Your task to perform on an android device: Search for macbook pro 13 inch on ebay.com, select the first entry, add it to the cart, then select checkout. Image 0: 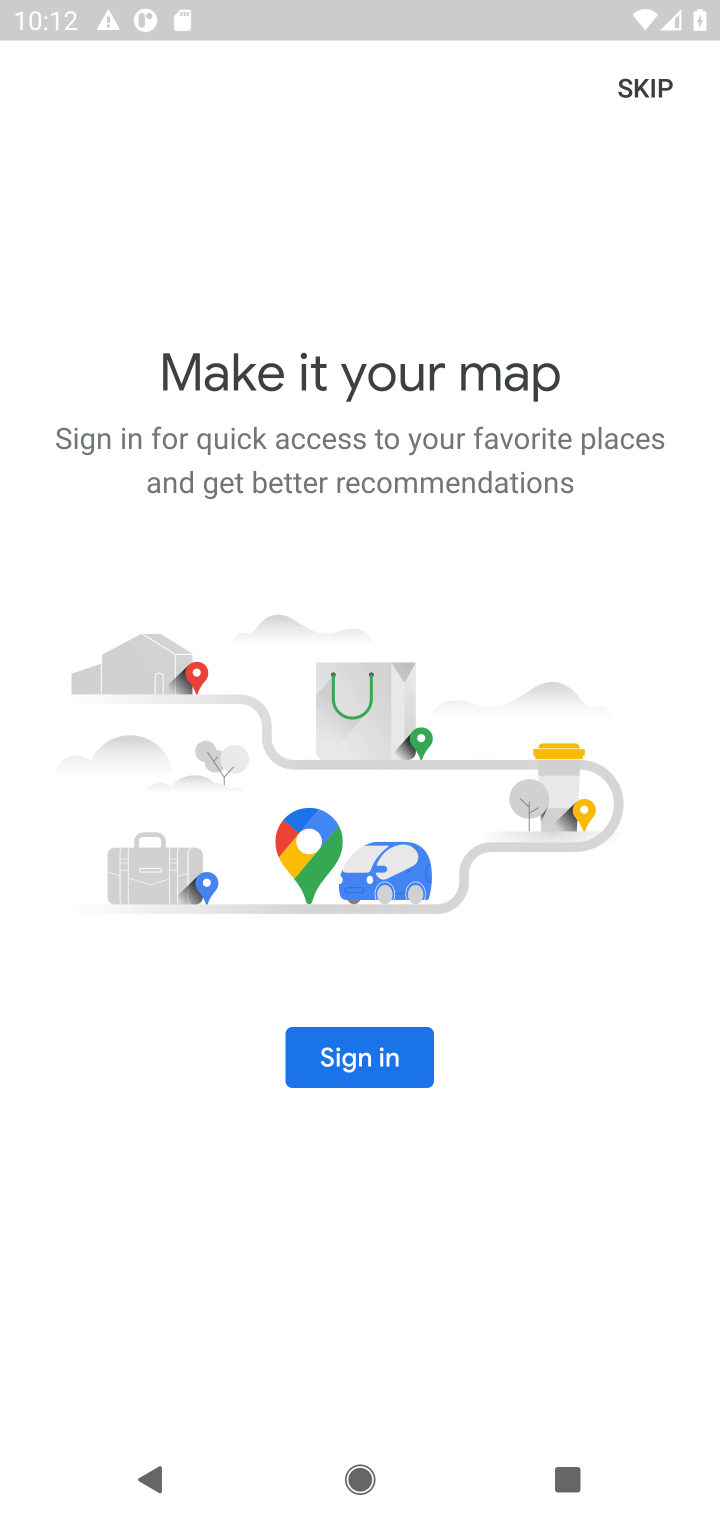
Step 0: press home button
Your task to perform on an android device: Search for macbook pro 13 inch on ebay.com, select the first entry, add it to the cart, then select checkout. Image 1: 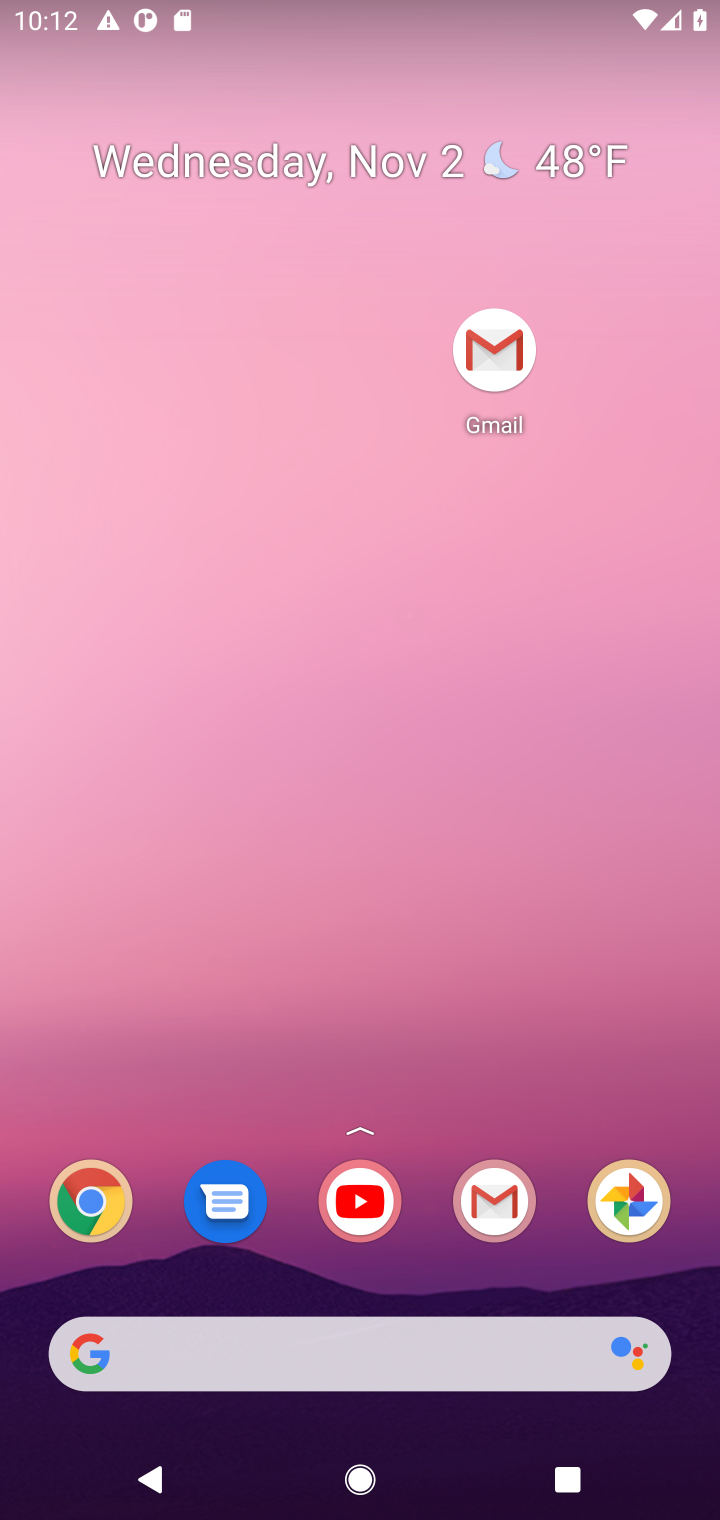
Step 1: drag from (448, 1130) to (398, 372)
Your task to perform on an android device: Search for macbook pro 13 inch on ebay.com, select the first entry, add it to the cart, then select checkout. Image 2: 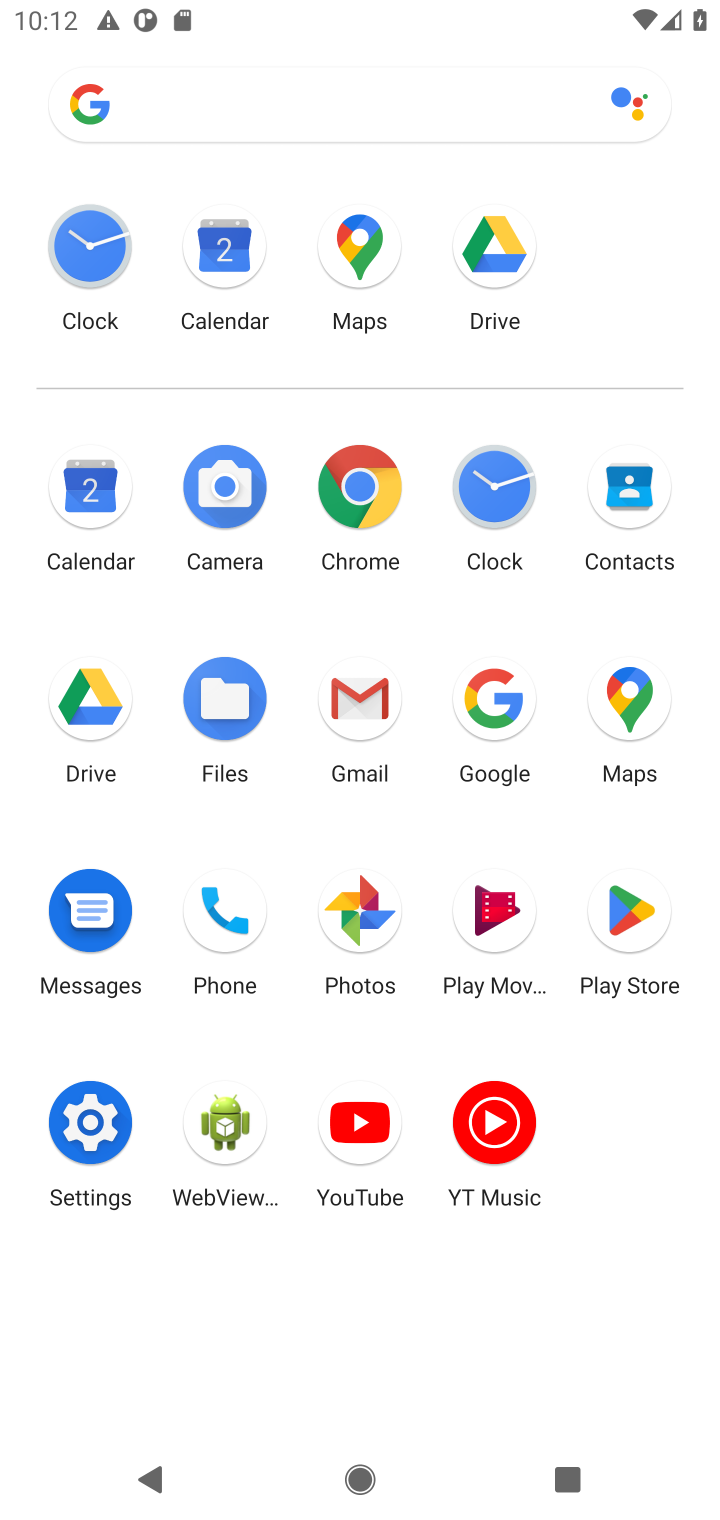
Step 2: click (353, 487)
Your task to perform on an android device: Search for macbook pro 13 inch on ebay.com, select the first entry, add it to the cart, then select checkout. Image 3: 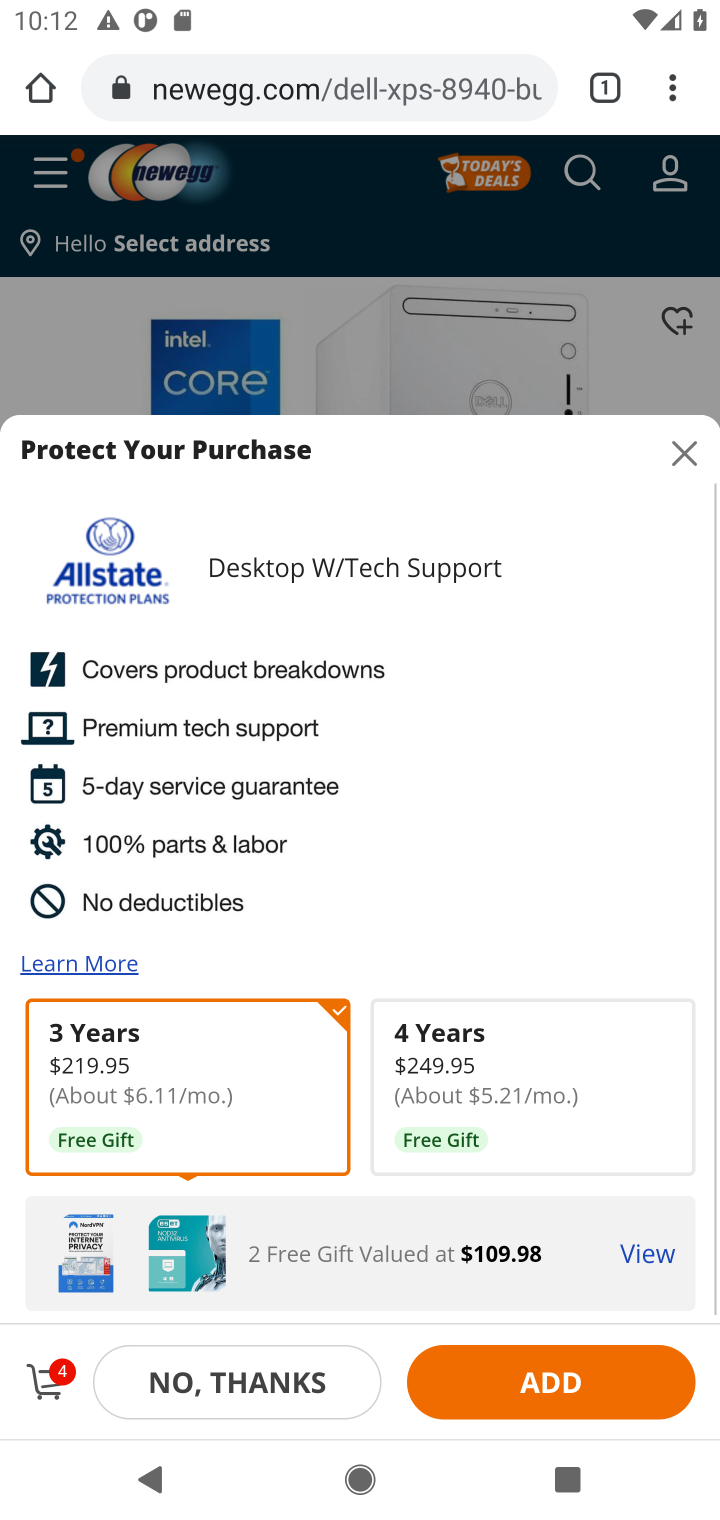
Step 3: click (324, 109)
Your task to perform on an android device: Search for macbook pro 13 inch on ebay.com, select the first entry, add it to the cart, then select checkout. Image 4: 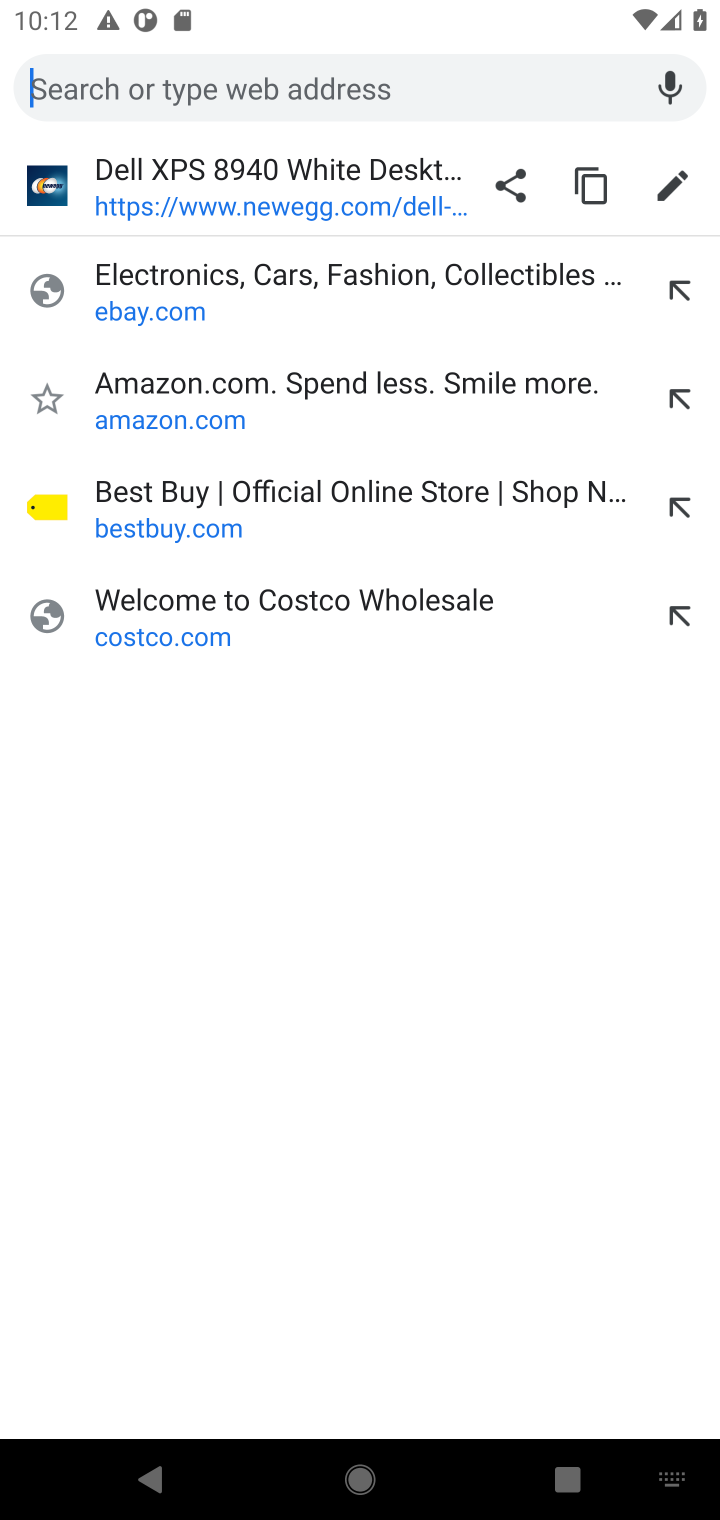
Step 4: type "ebay.com"
Your task to perform on an android device: Search for macbook pro 13 inch on ebay.com, select the first entry, add it to the cart, then select checkout. Image 5: 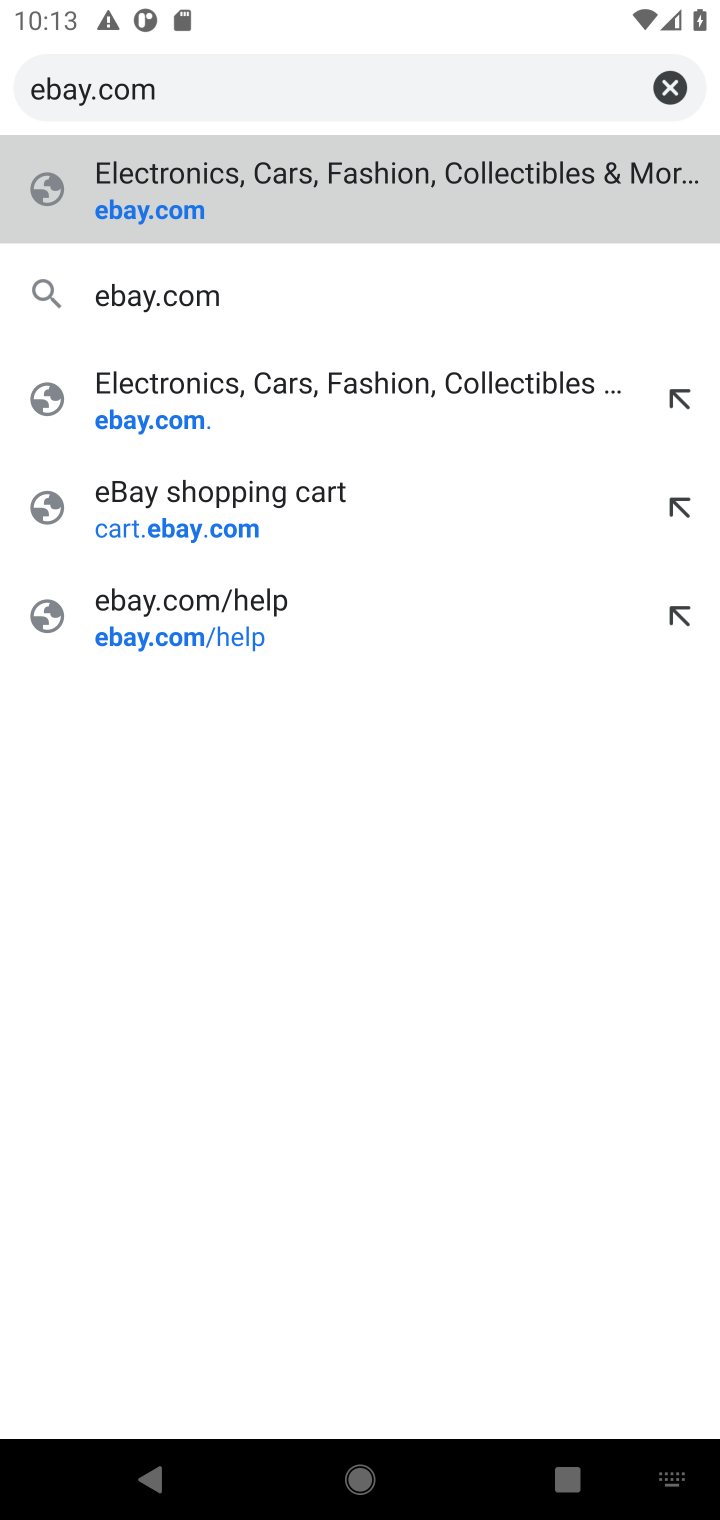
Step 5: press enter
Your task to perform on an android device: Search for macbook pro 13 inch on ebay.com, select the first entry, add it to the cart, then select checkout. Image 6: 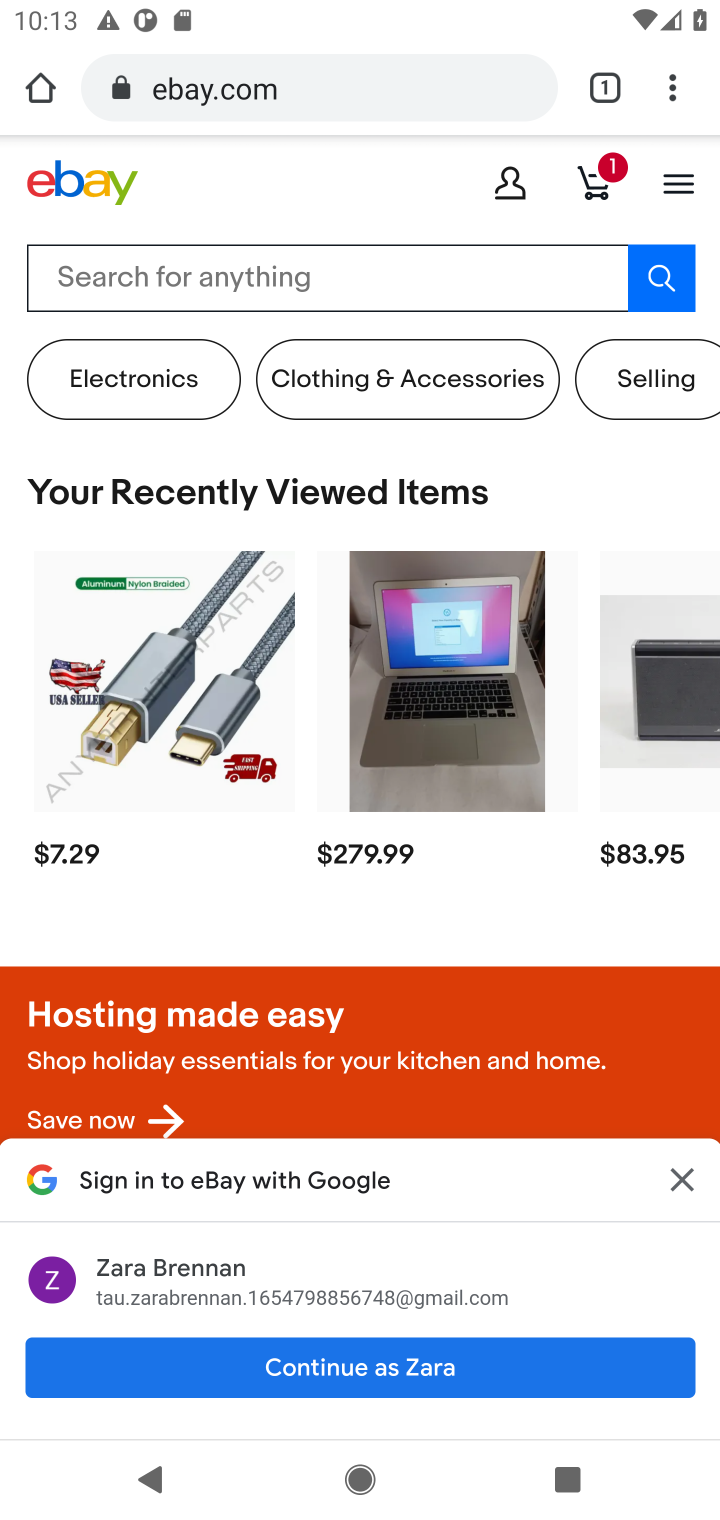
Step 6: click (348, 286)
Your task to perform on an android device: Search for macbook pro 13 inch on ebay.com, select the first entry, add it to the cart, then select checkout. Image 7: 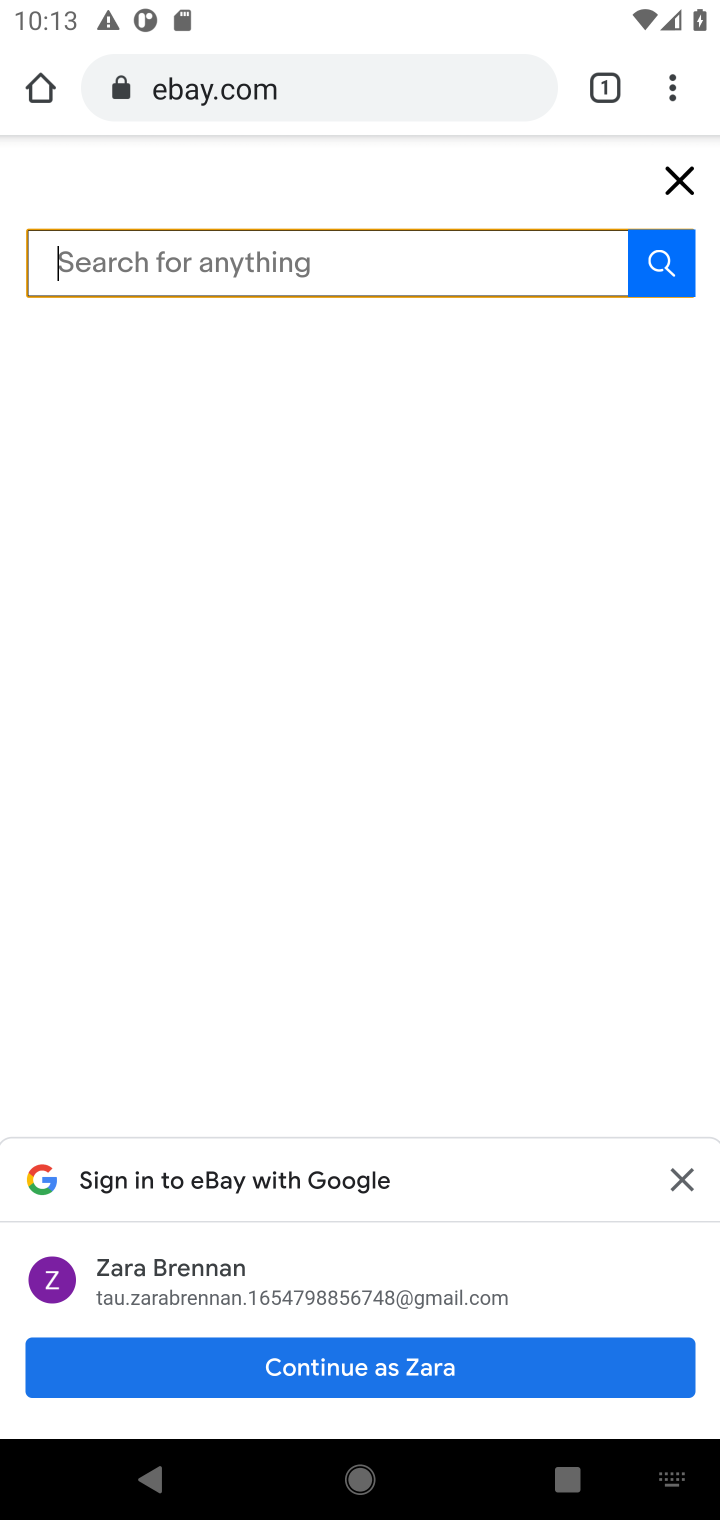
Step 7: type "macbook pro 13"
Your task to perform on an android device: Search for macbook pro 13 inch on ebay.com, select the first entry, add it to the cart, then select checkout. Image 8: 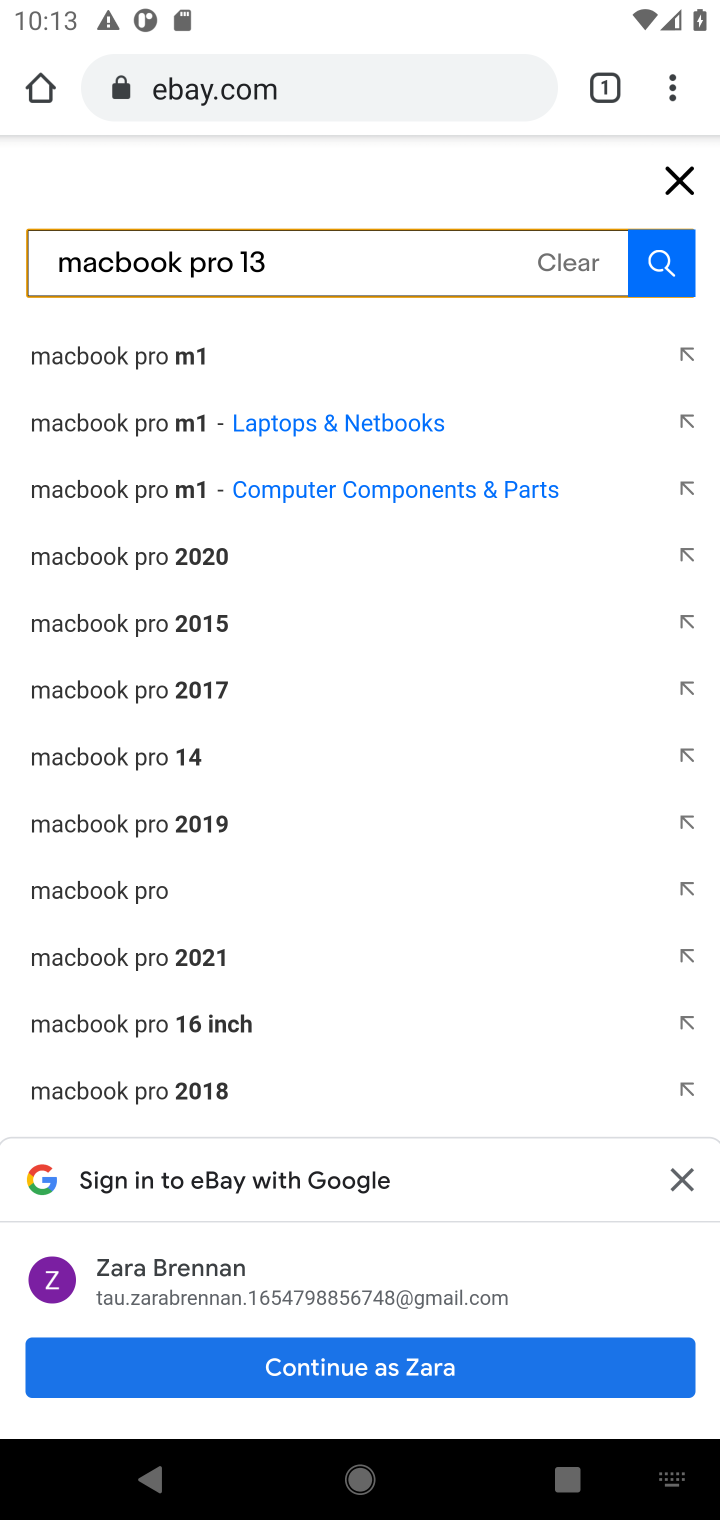
Step 8: press enter
Your task to perform on an android device: Search for macbook pro 13 inch on ebay.com, select the first entry, add it to the cart, then select checkout. Image 9: 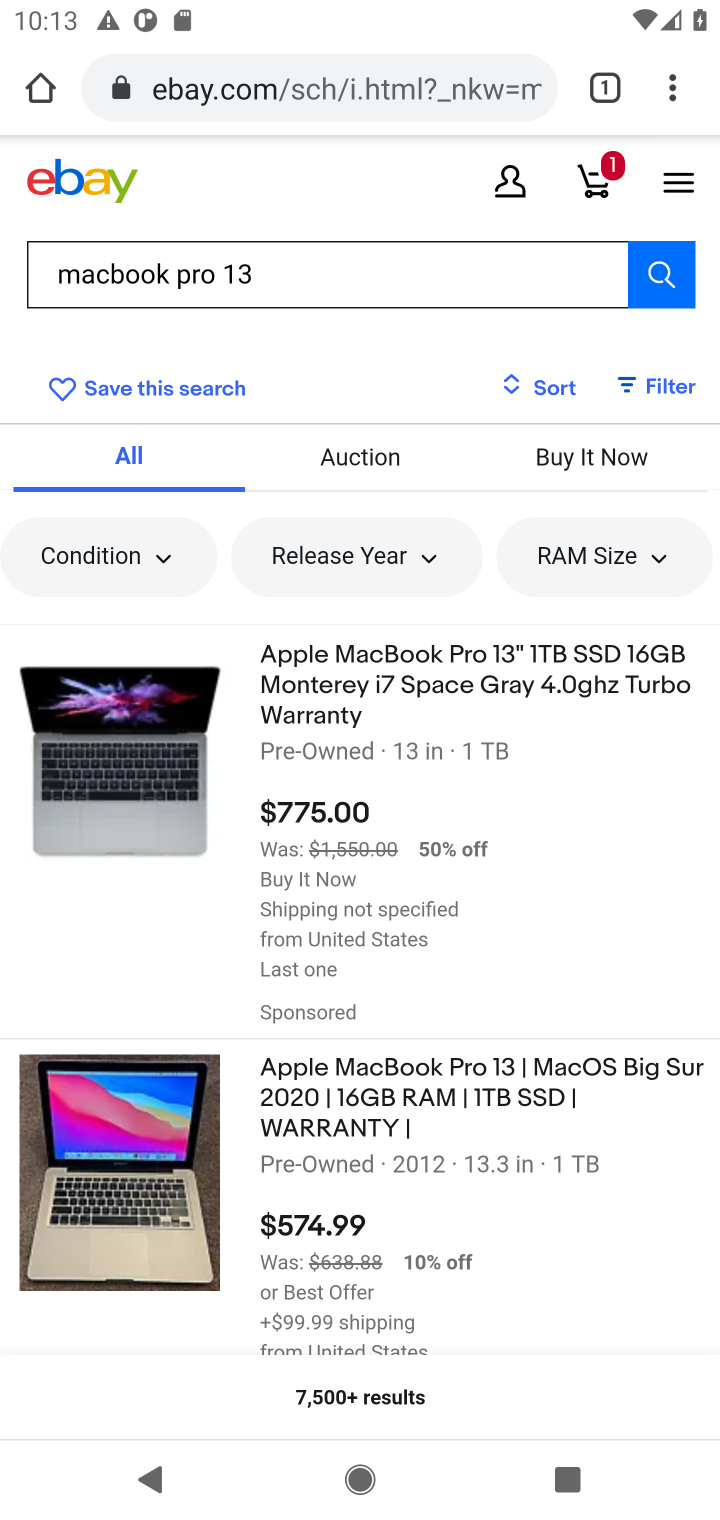
Step 9: click (353, 691)
Your task to perform on an android device: Search for macbook pro 13 inch on ebay.com, select the first entry, add it to the cart, then select checkout. Image 10: 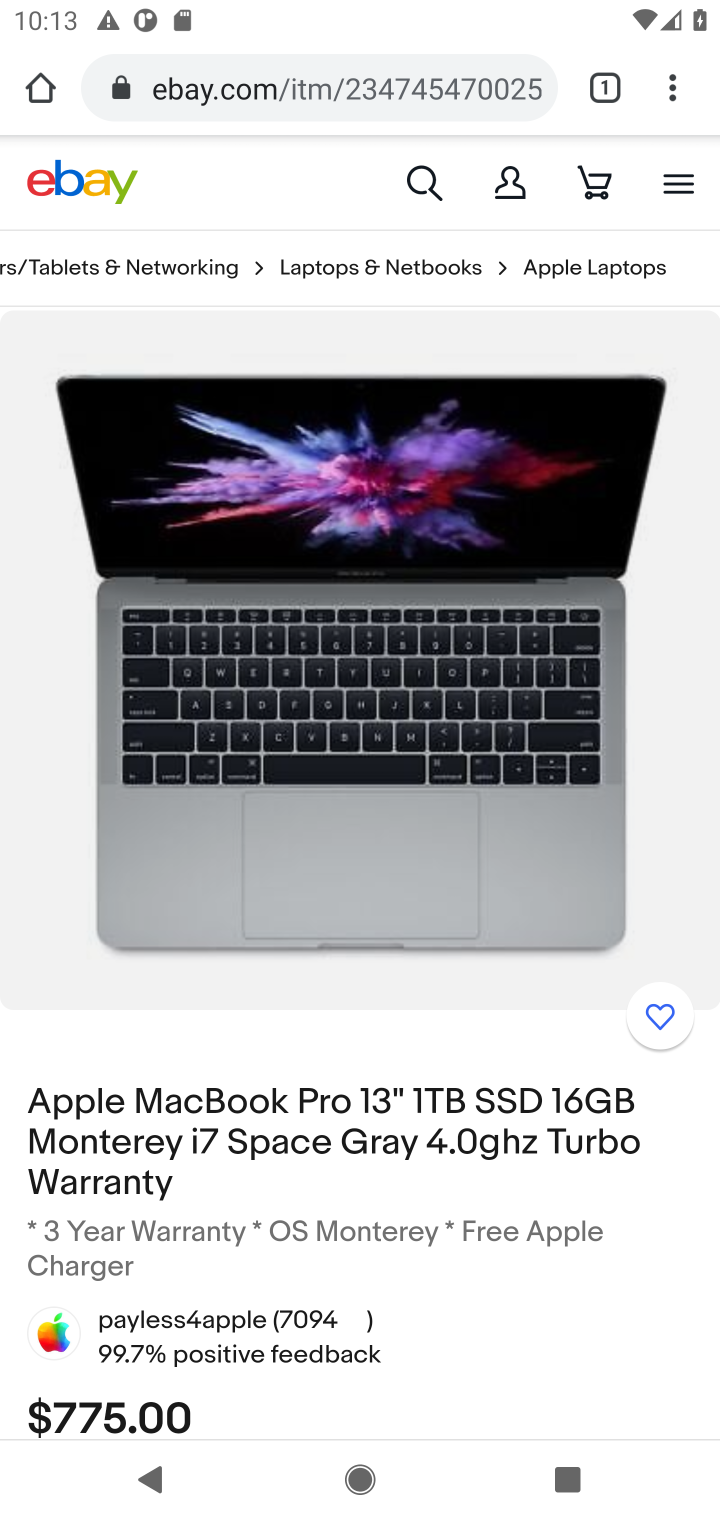
Step 10: drag from (372, 1319) to (469, 125)
Your task to perform on an android device: Search for macbook pro 13 inch on ebay.com, select the first entry, add it to the cart, then select checkout. Image 11: 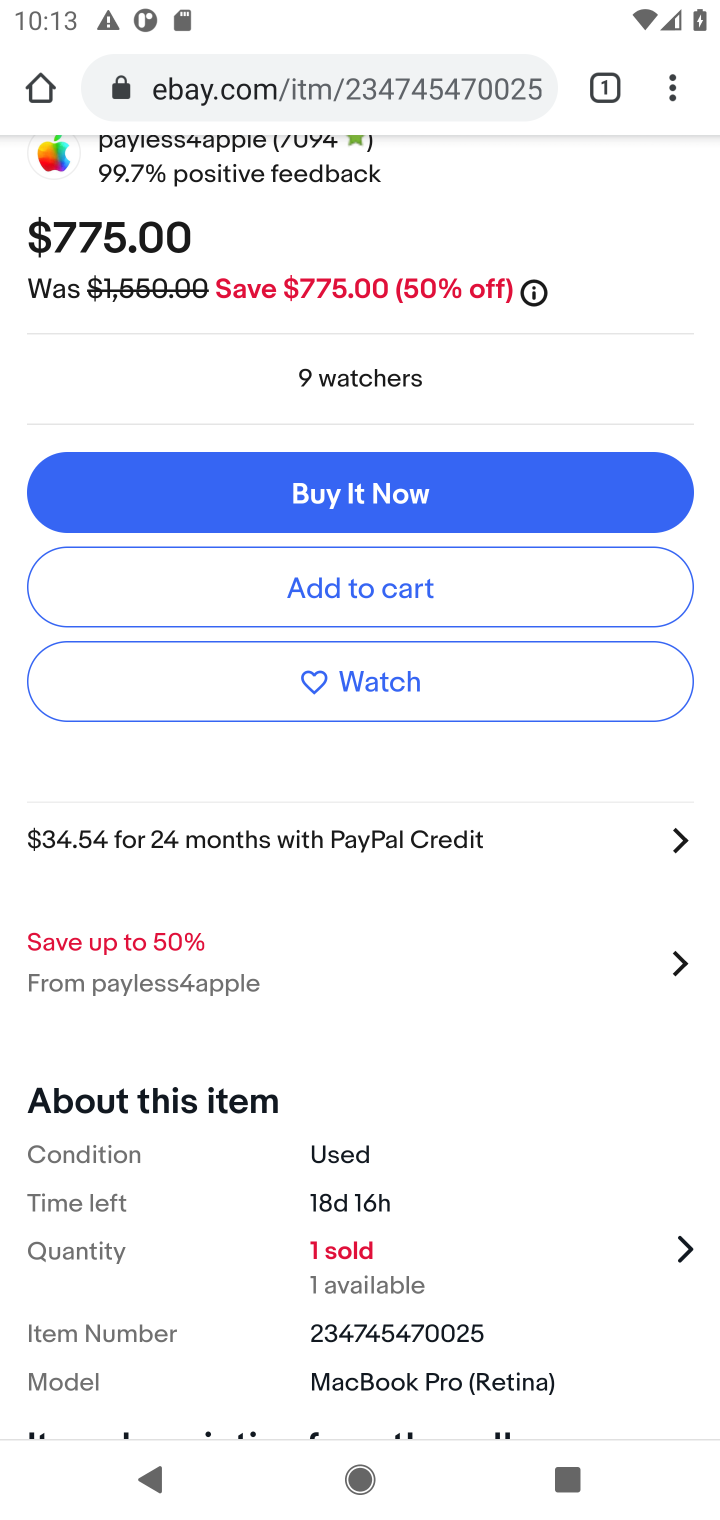
Step 11: click (356, 596)
Your task to perform on an android device: Search for macbook pro 13 inch on ebay.com, select the first entry, add it to the cart, then select checkout. Image 12: 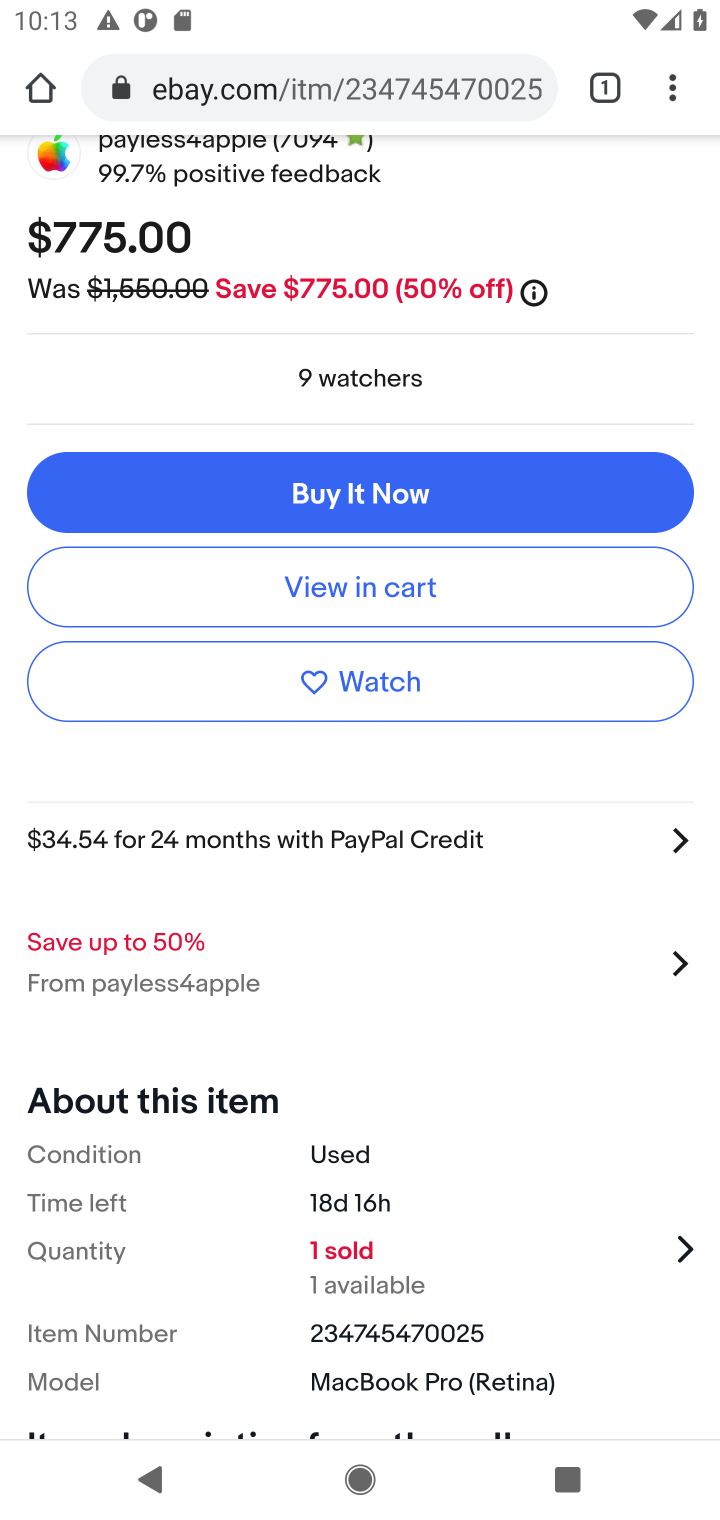
Step 12: click (356, 596)
Your task to perform on an android device: Search for macbook pro 13 inch on ebay.com, select the first entry, add it to the cart, then select checkout. Image 13: 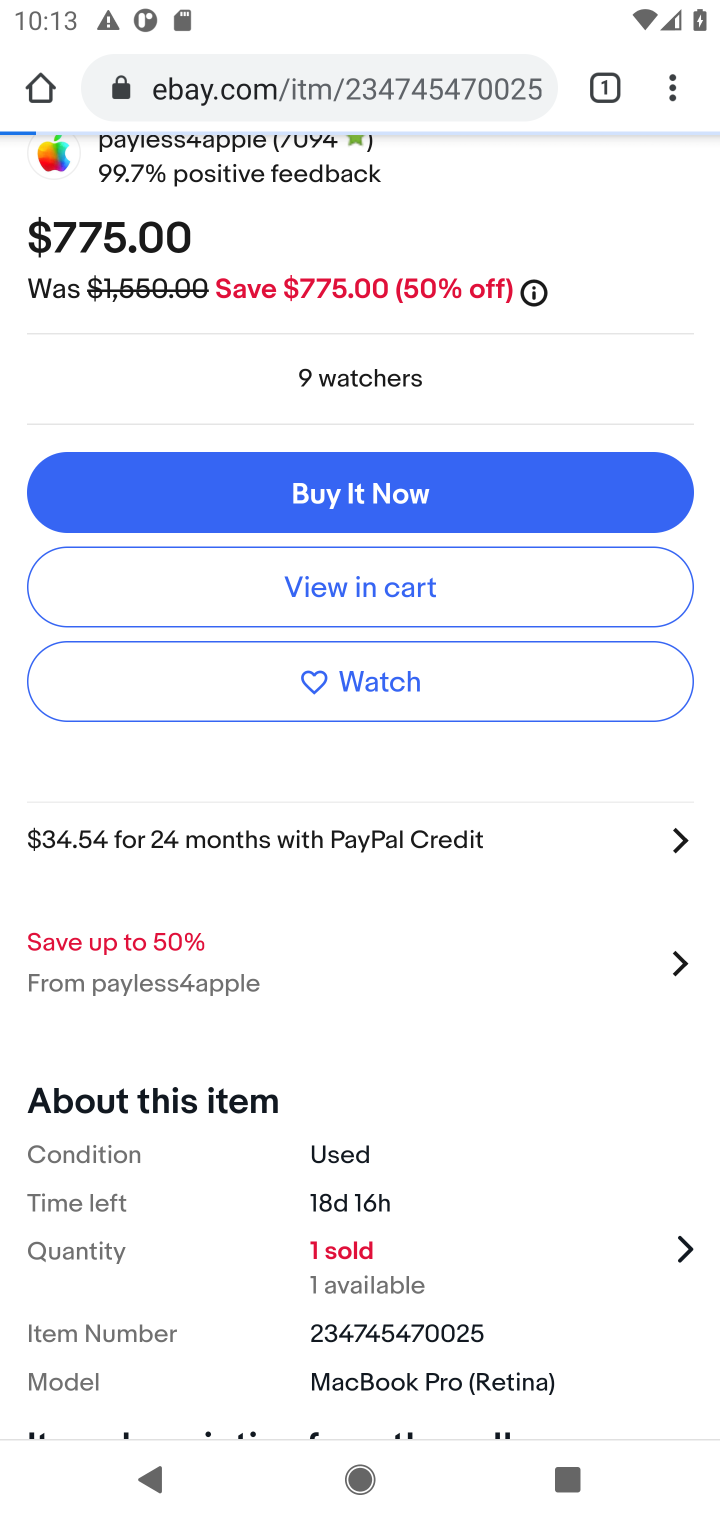
Step 13: click (356, 596)
Your task to perform on an android device: Search for macbook pro 13 inch on ebay.com, select the first entry, add it to the cart, then select checkout. Image 14: 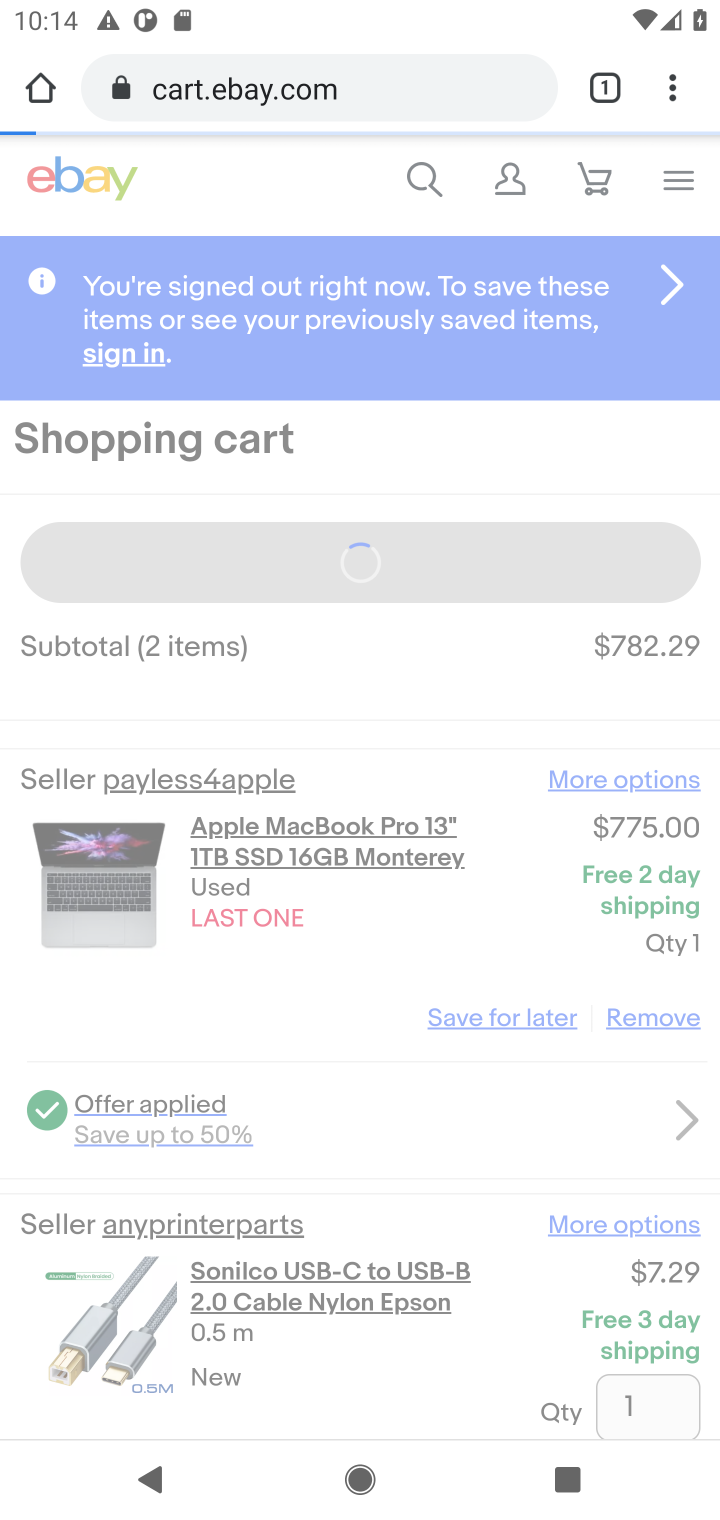
Step 14: click (378, 563)
Your task to perform on an android device: Search for macbook pro 13 inch on ebay.com, select the first entry, add it to the cart, then select checkout. Image 15: 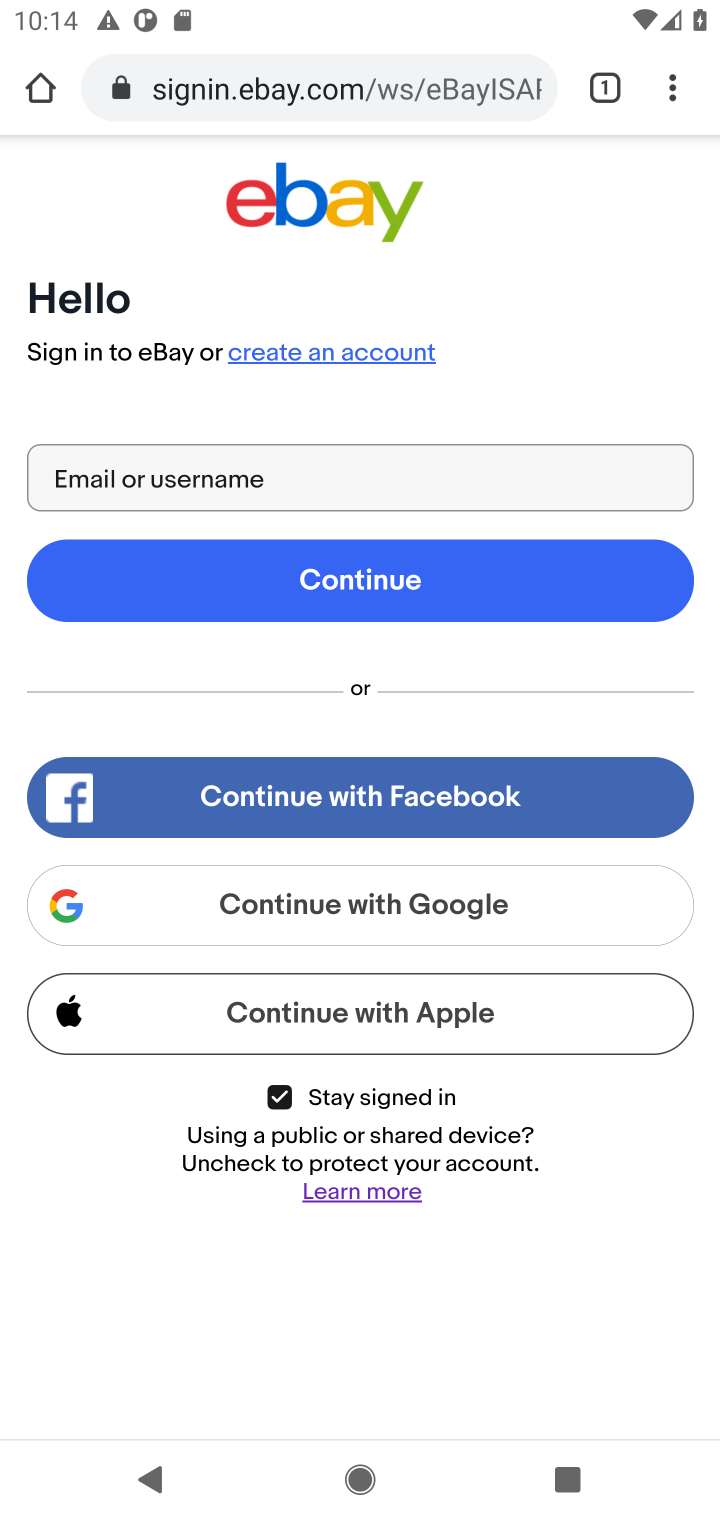
Step 15: task complete